Your task to perform on an android device: install app "Messenger Lite" Image 0: 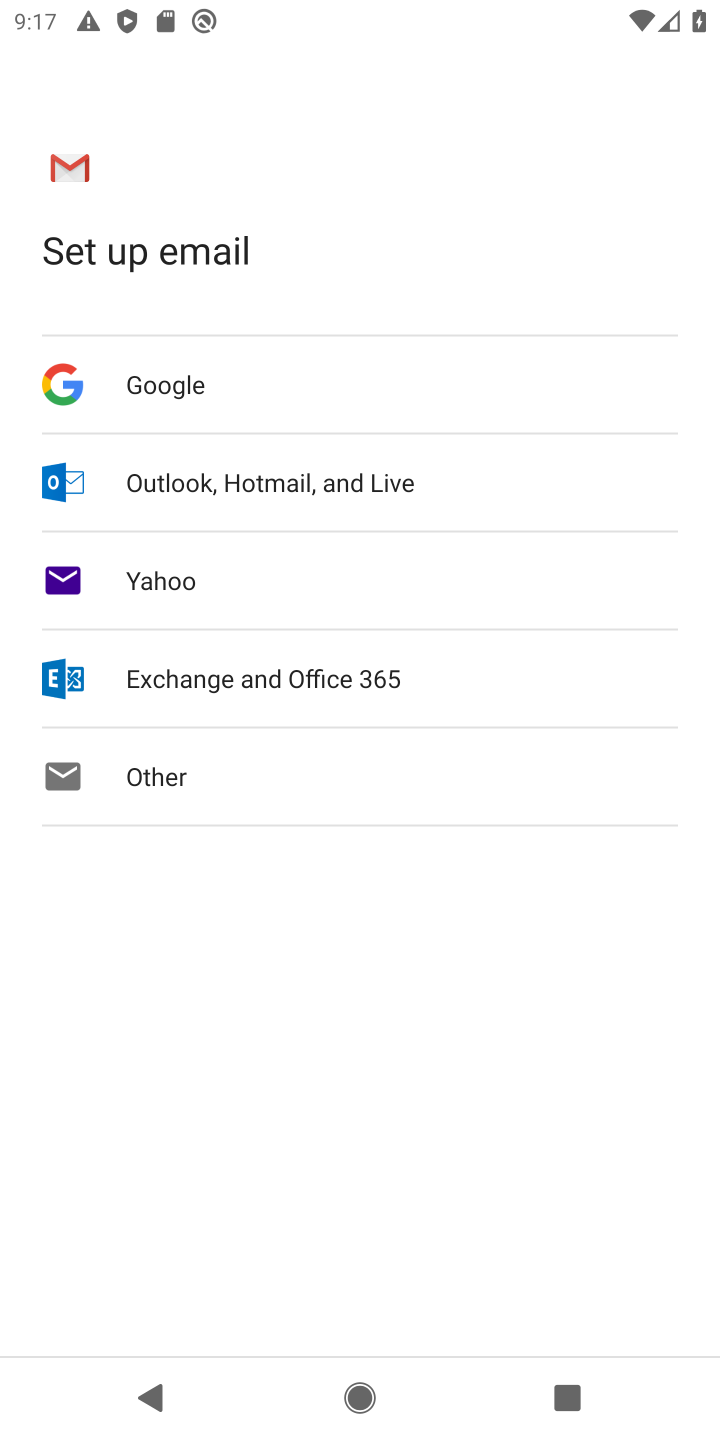
Step 0: press home button
Your task to perform on an android device: install app "Messenger Lite" Image 1: 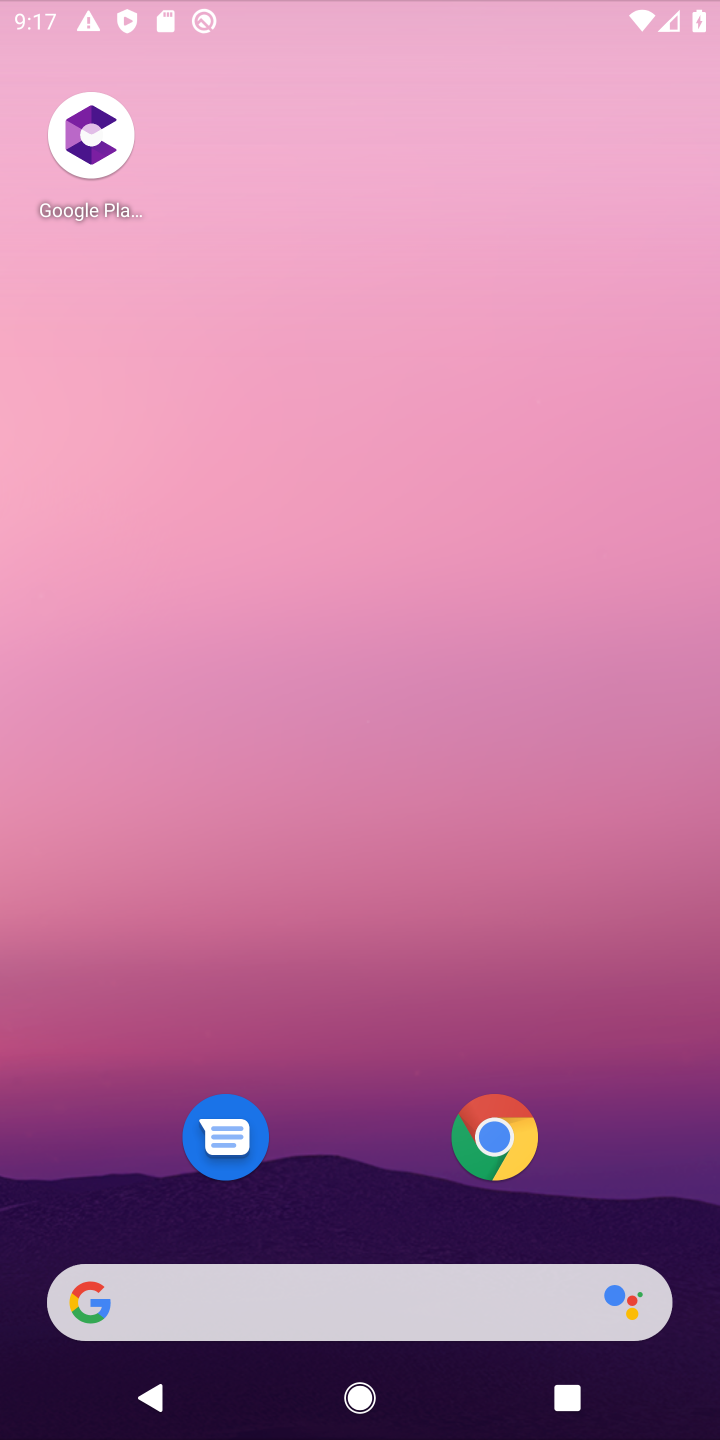
Step 1: drag from (675, 1196) to (275, 31)
Your task to perform on an android device: install app "Messenger Lite" Image 2: 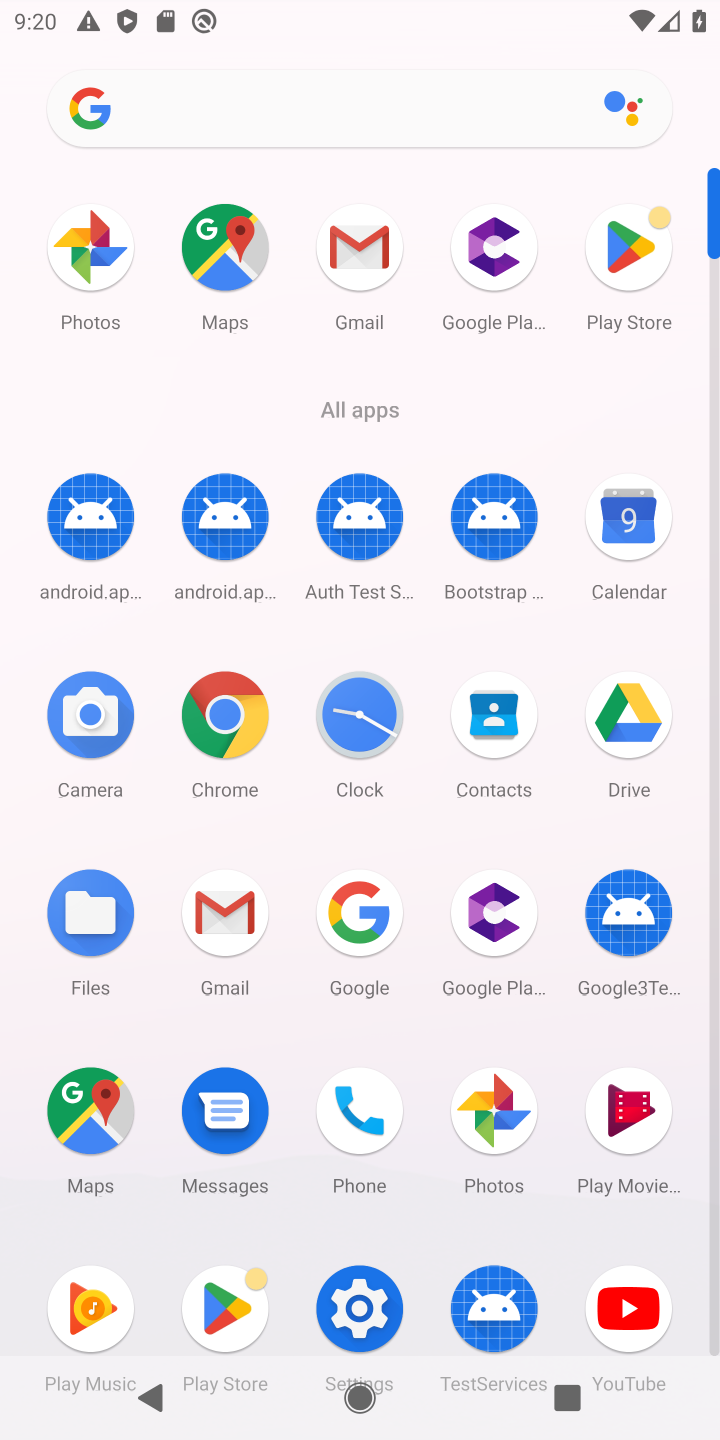
Step 2: click (211, 1308)
Your task to perform on an android device: install app "Messenger Lite" Image 3: 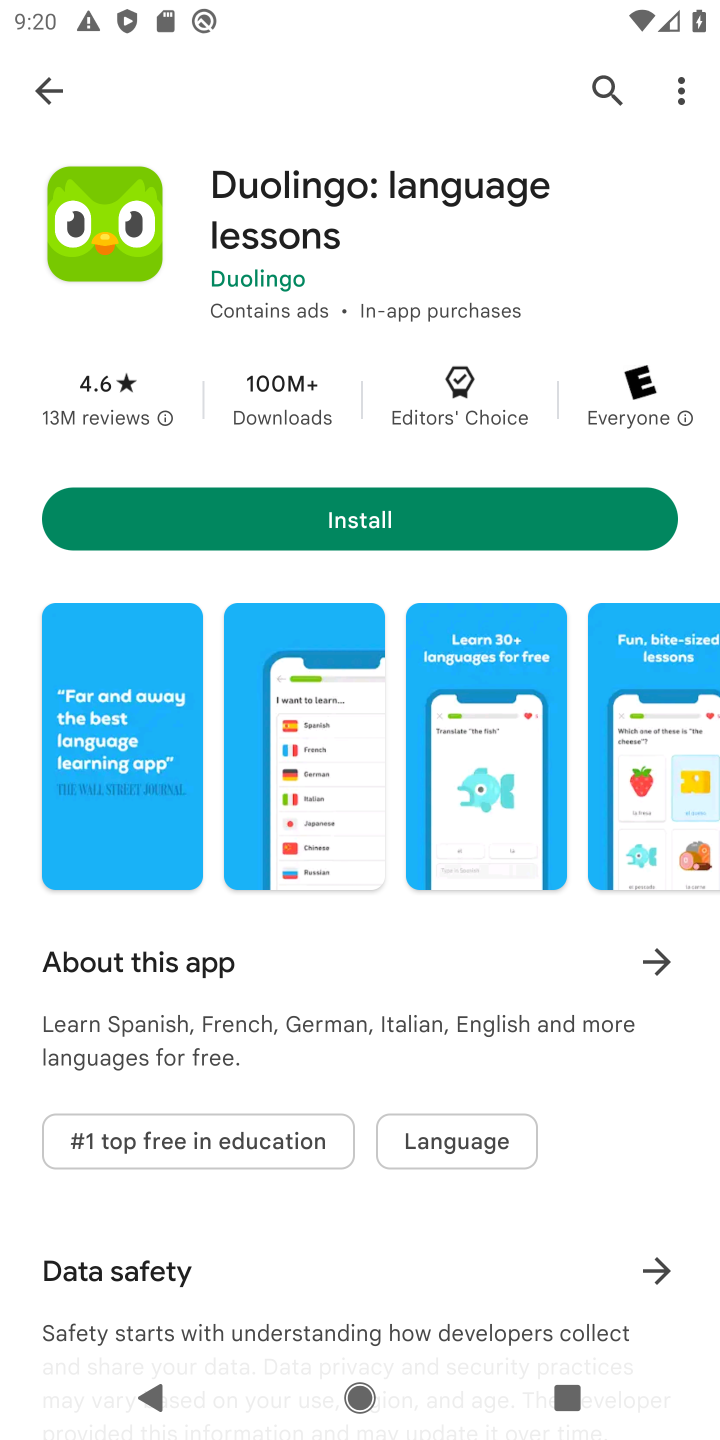
Step 3: press back button
Your task to perform on an android device: install app "Messenger Lite" Image 4: 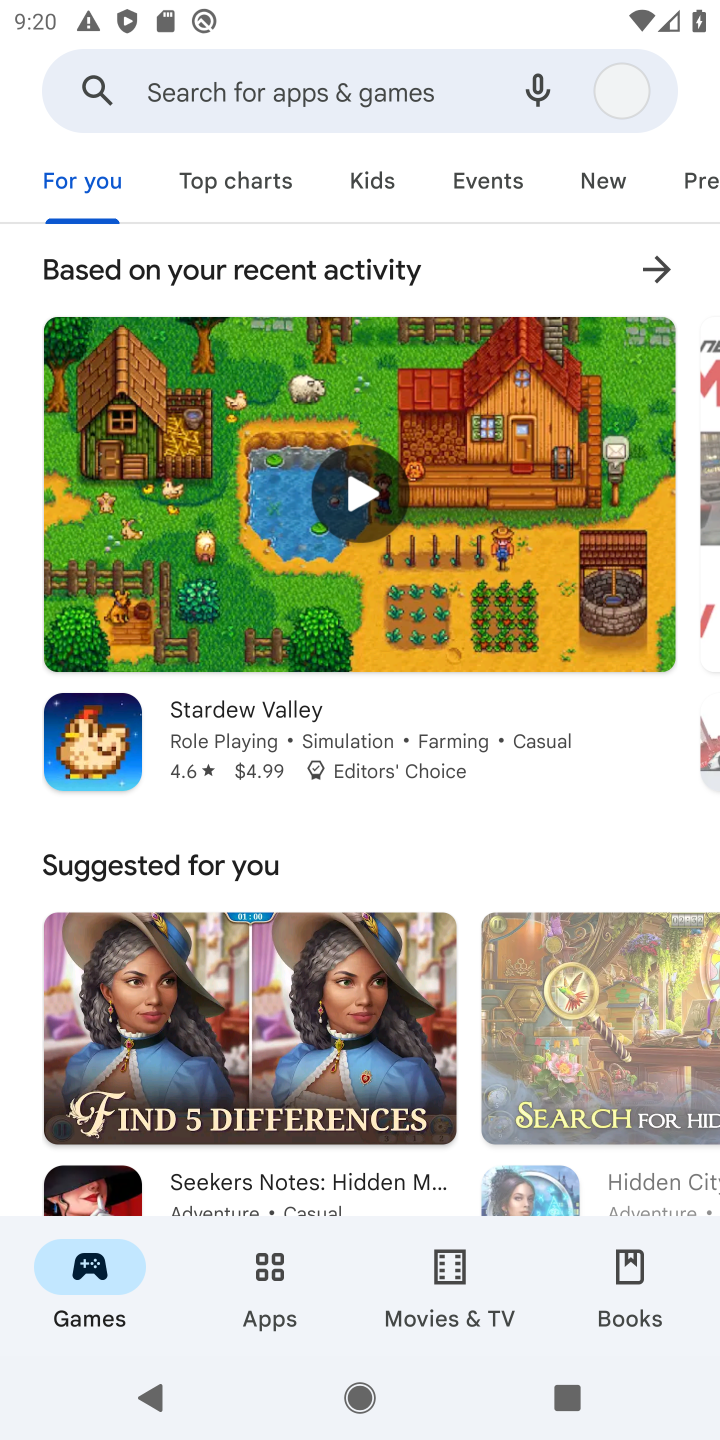
Step 4: click (242, 91)
Your task to perform on an android device: install app "Messenger Lite" Image 5: 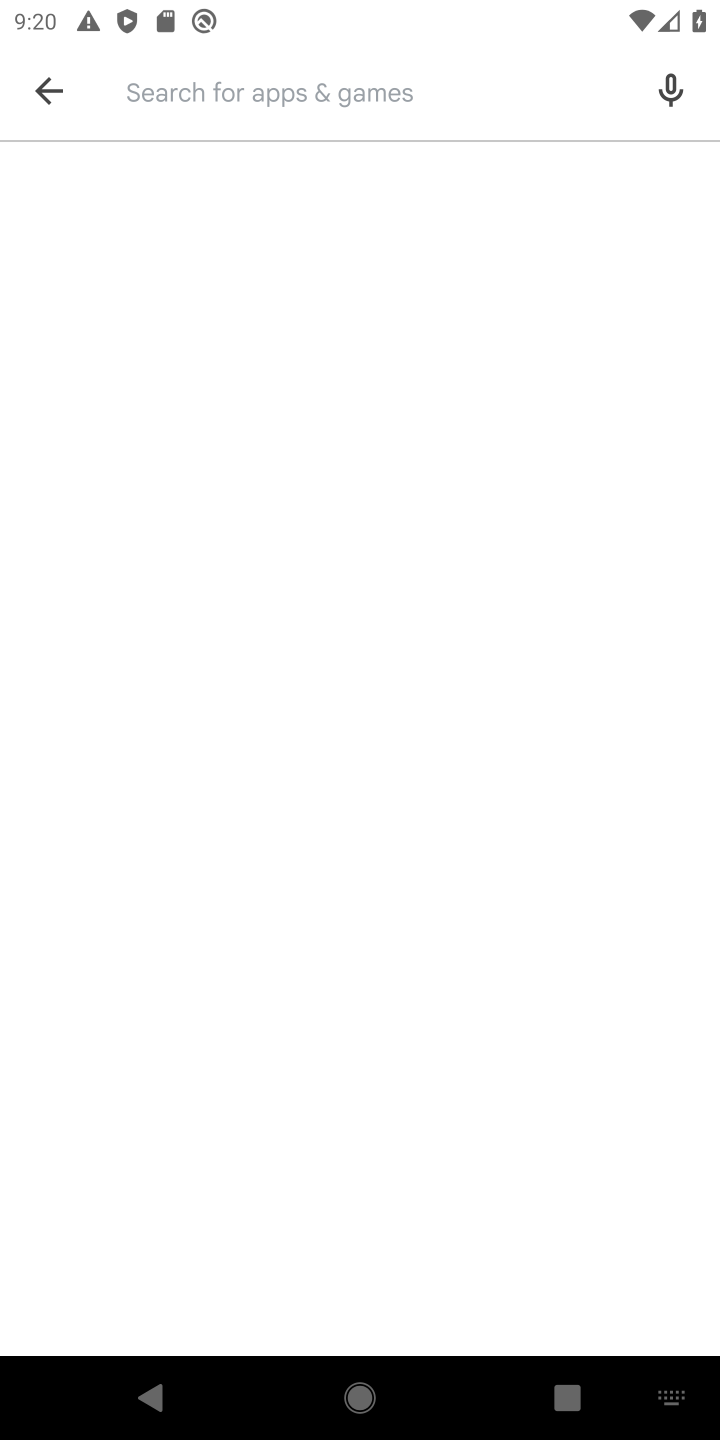
Step 5: type "Messenger Lite"
Your task to perform on an android device: install app "Messenger Lite" Image 6: 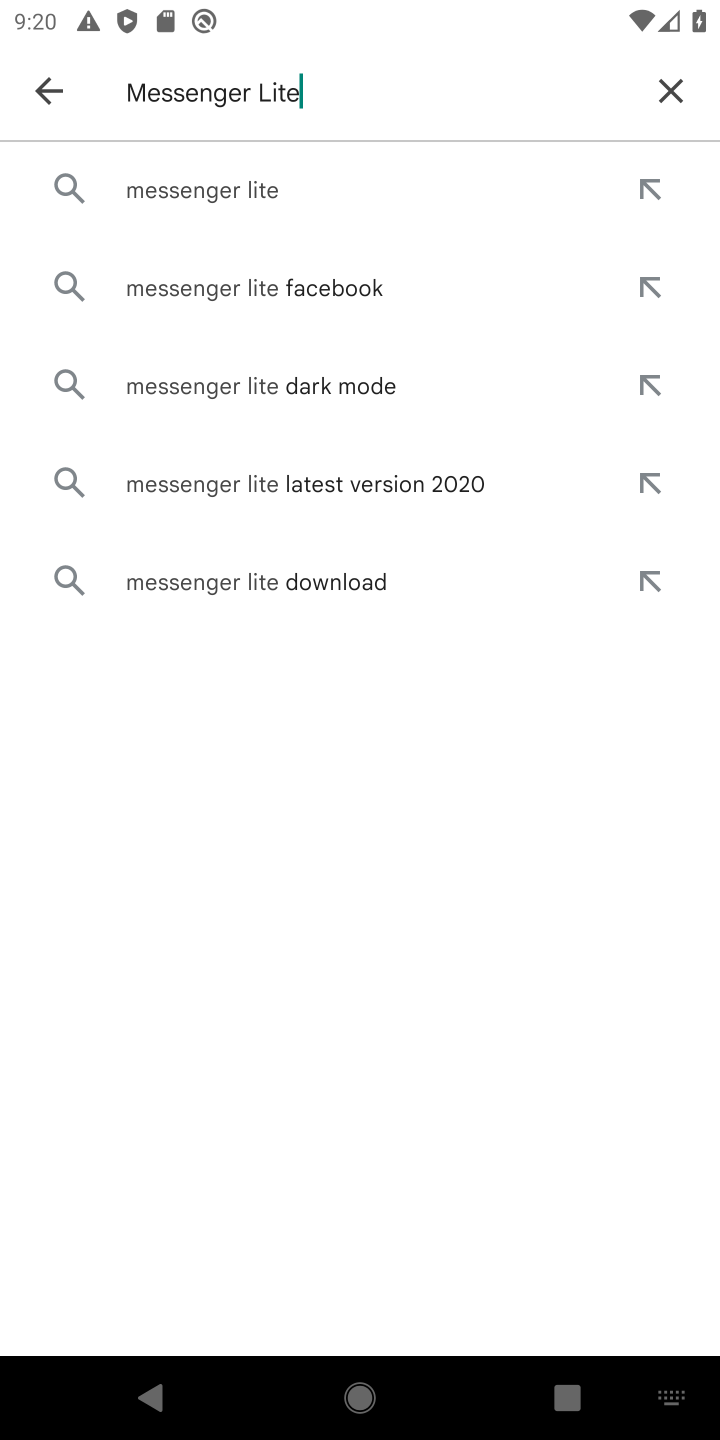
Step 6: click (266, 199)
Your task to perform on an android device: install app "Messenger Lite" Image 7: 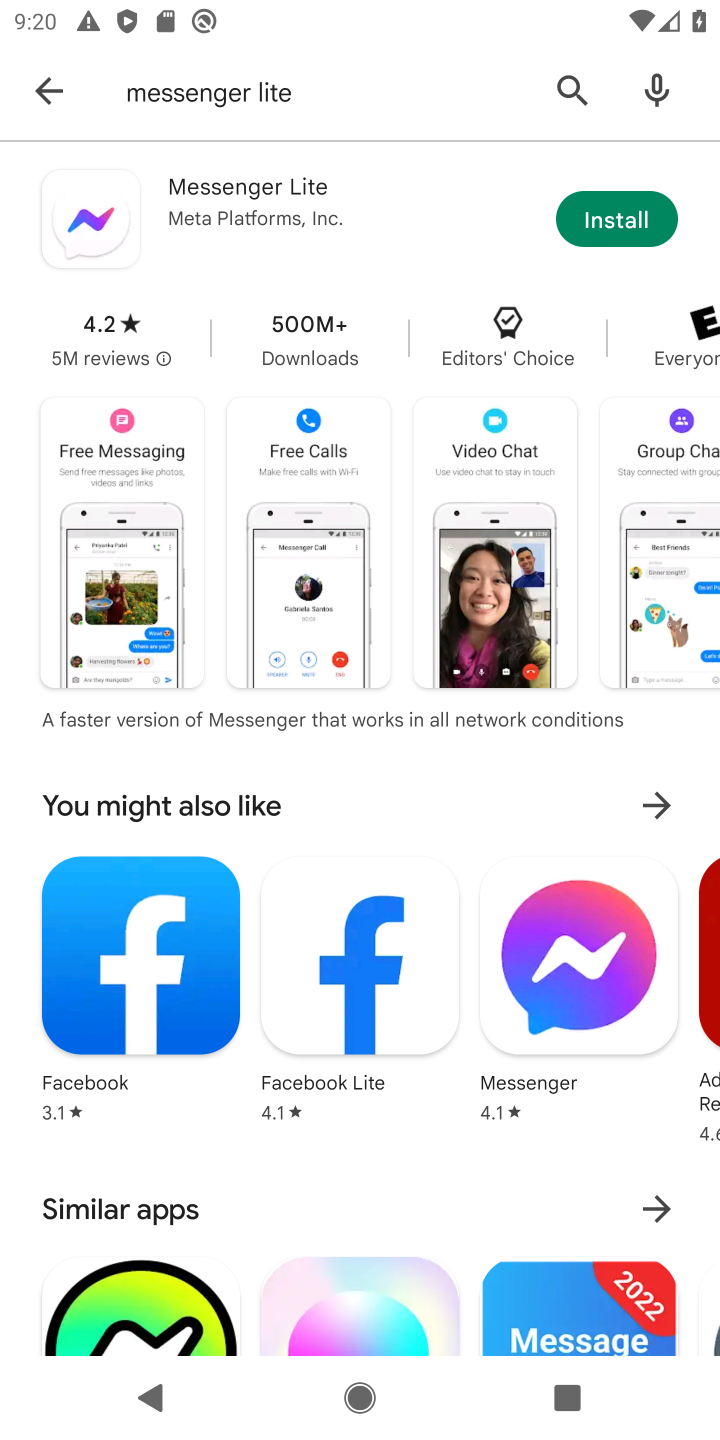
Step 7: click (657, 202)
Your task to perform on an android device: install app "Messenger Lite" Image 8: 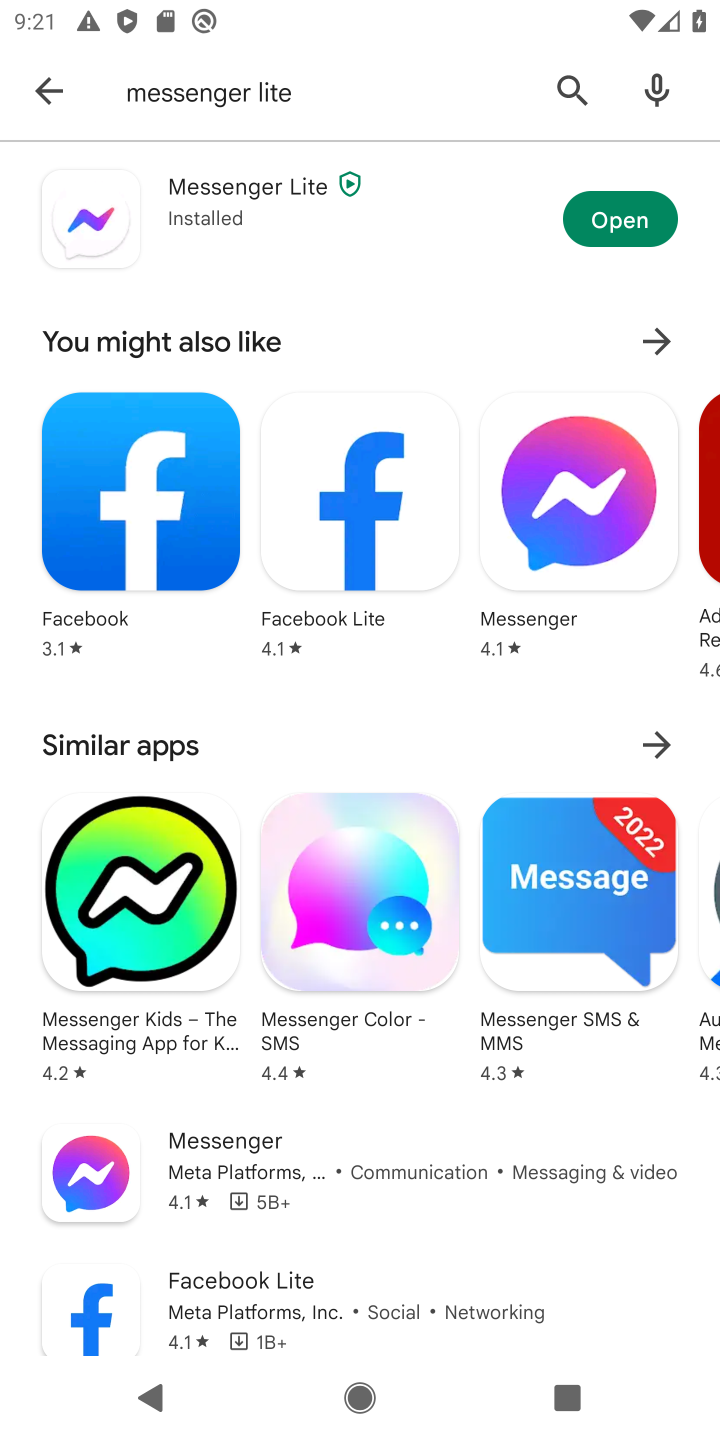
Step 8: task complete